Your task to perform on an android device: Open Google Chrome Image 0: 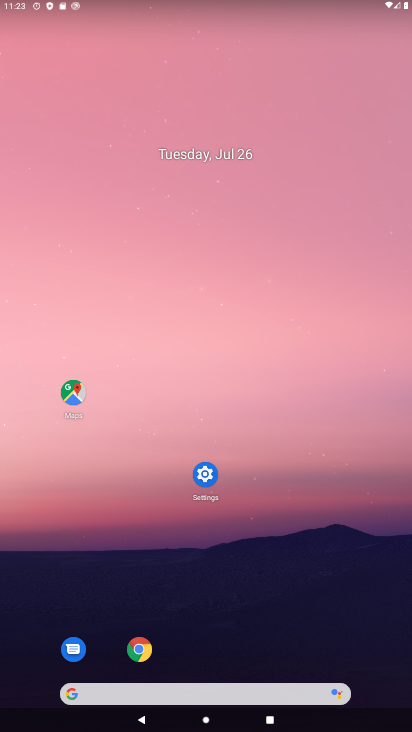
Step 0: click (200, 291)
Your task to perform on an android device: Open Google Chrome Image 1: 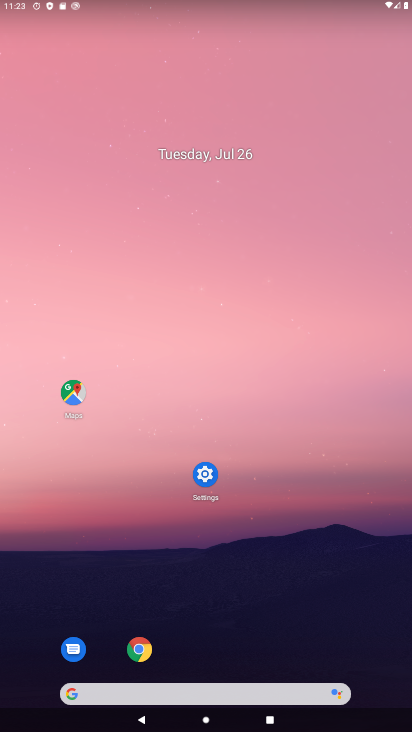
Step 1: click (257, 449)
Your task to perform on an android device: Open Google Chrome Image 2: 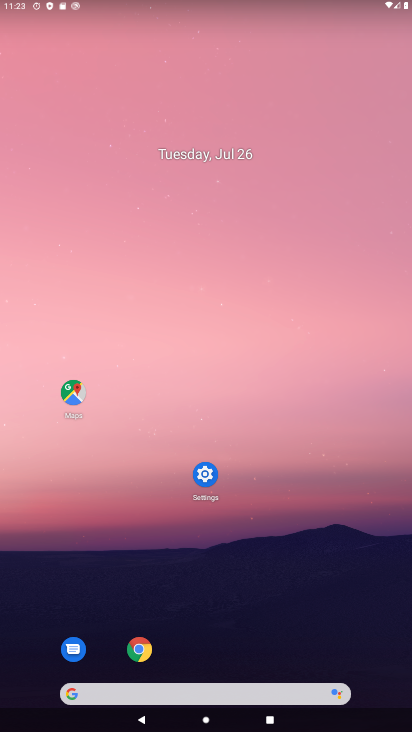
Step 2: drag from (182, 518) to (132, 152)
Your task to perform on an android device: Open Google Chrome Image 3: 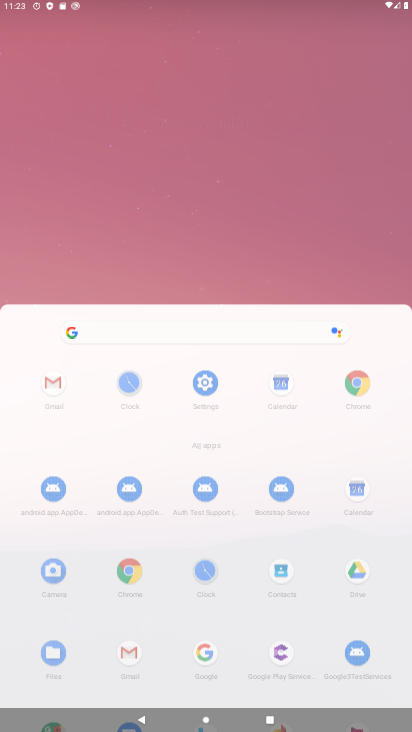
Step 3: drag from (83, 28) to (116, 14)
Your task to perform on an android device: Open Google Chrome Image 4: 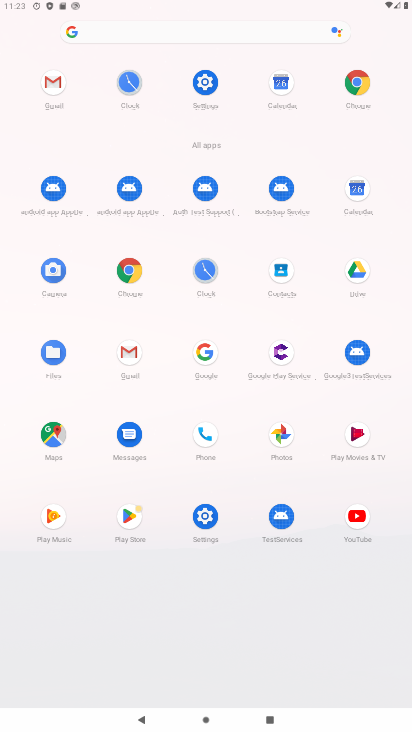
Step 4: drag from (176, 330) to (171, 111)
Your task to perform on an android device: Open Google Chrome Image 5: 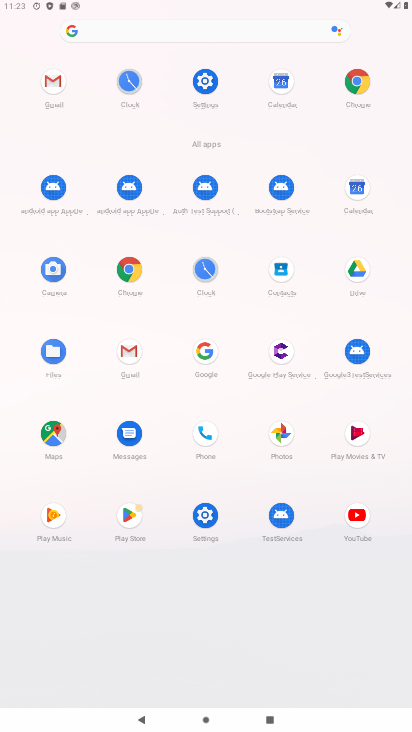
Step 5: click (351, 80)
Your task to perform on an android device: Open Google Chrome Image 6: 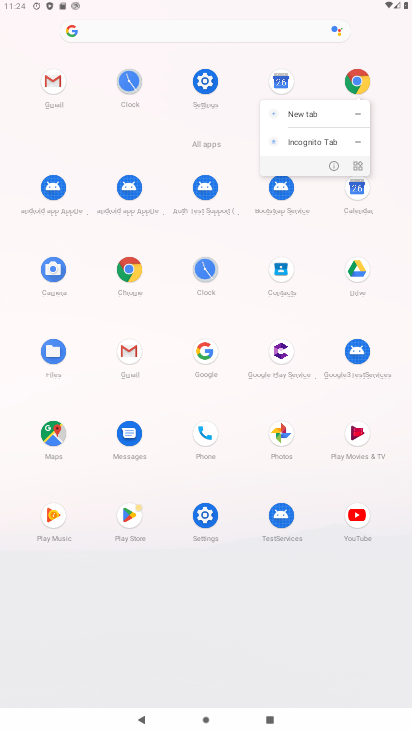
Step 6: click (357, 82)
Your task to perform on an android device: Open Google Chrome Image 7: 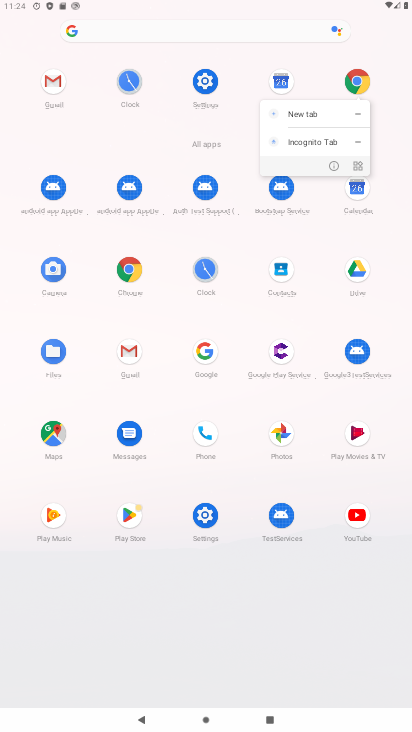
Step 7: click (356, 86)
Your task to perform on an android device: Open Google Chrome Image 8: 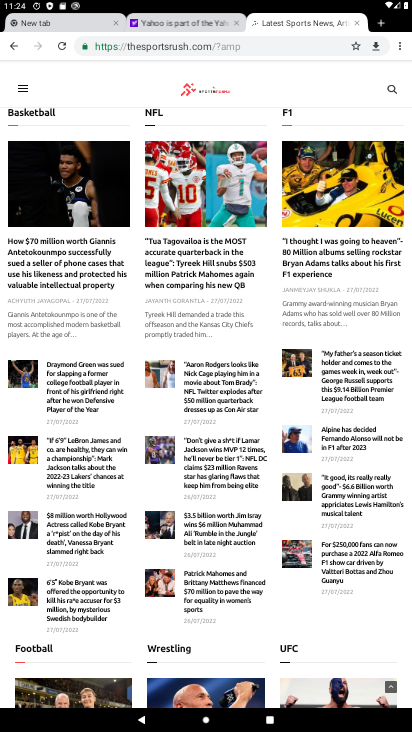
Step 8: task complete